Your task to perform on an android device: What's the price of the Galaxy phone on eBay? Image 0: 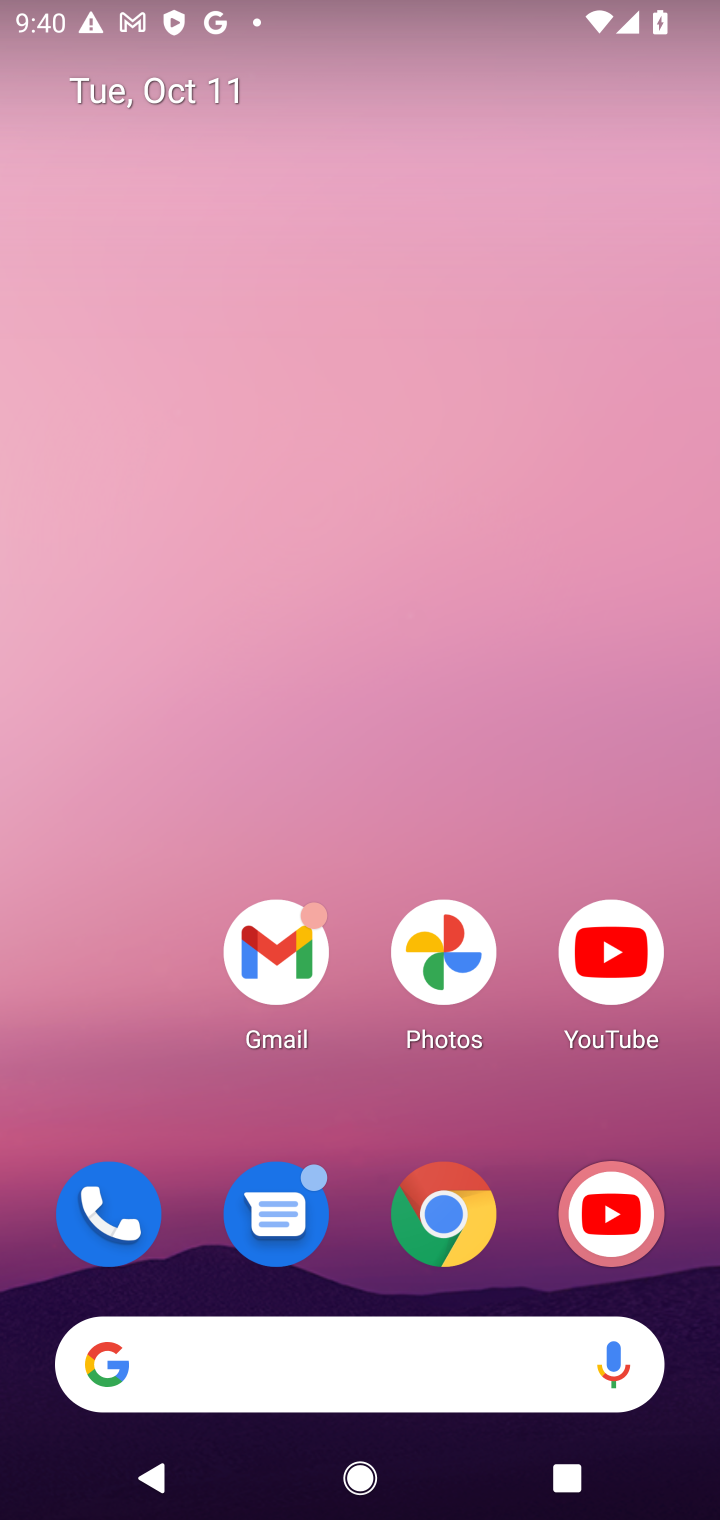
Step 0: drag from (375, 1114) to (477, 132)
Your task to perform on an android device: What's the price of the Galaxy phone on eBay? Image 1: 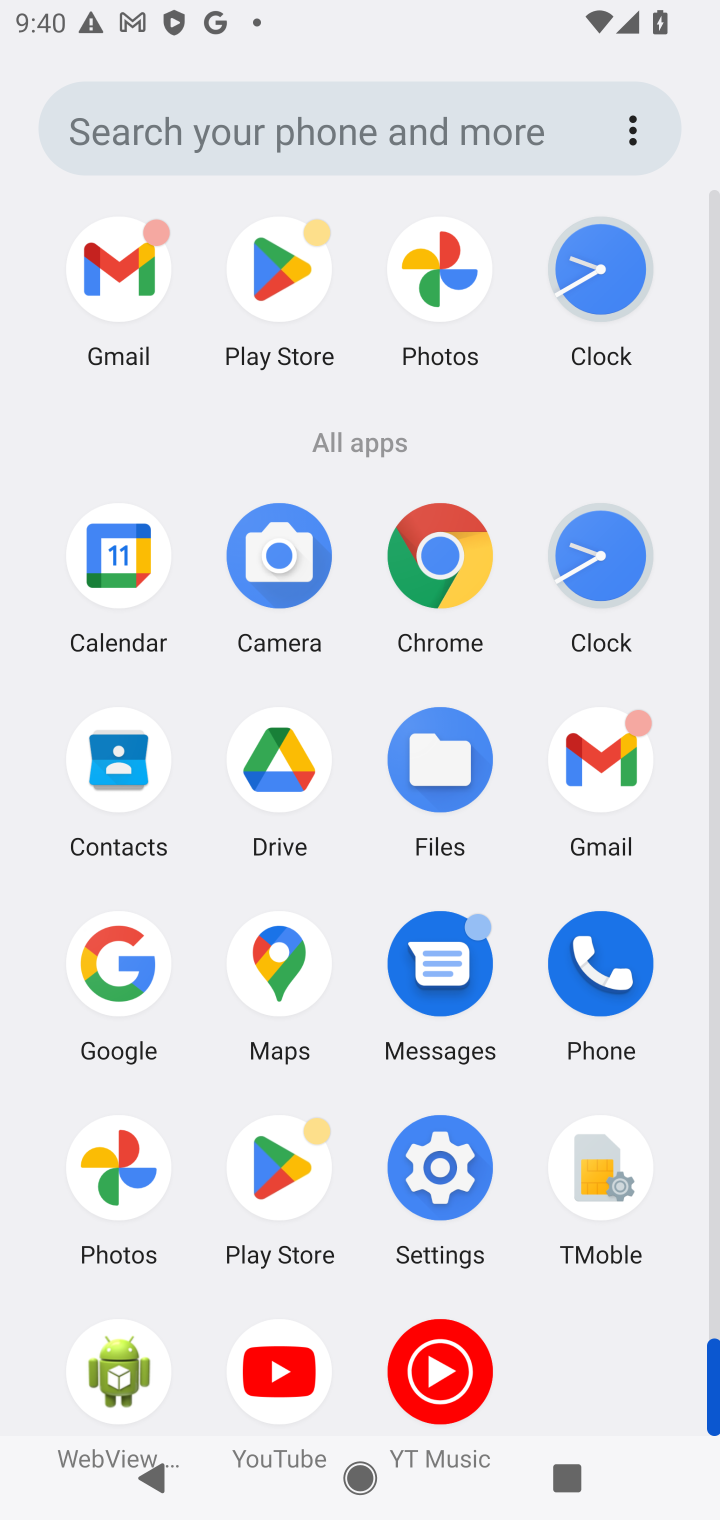
Step 1: click (440, 571)
Your task to perform on an android device: What's the price of the Galaxy phone on eBay? Image 2: 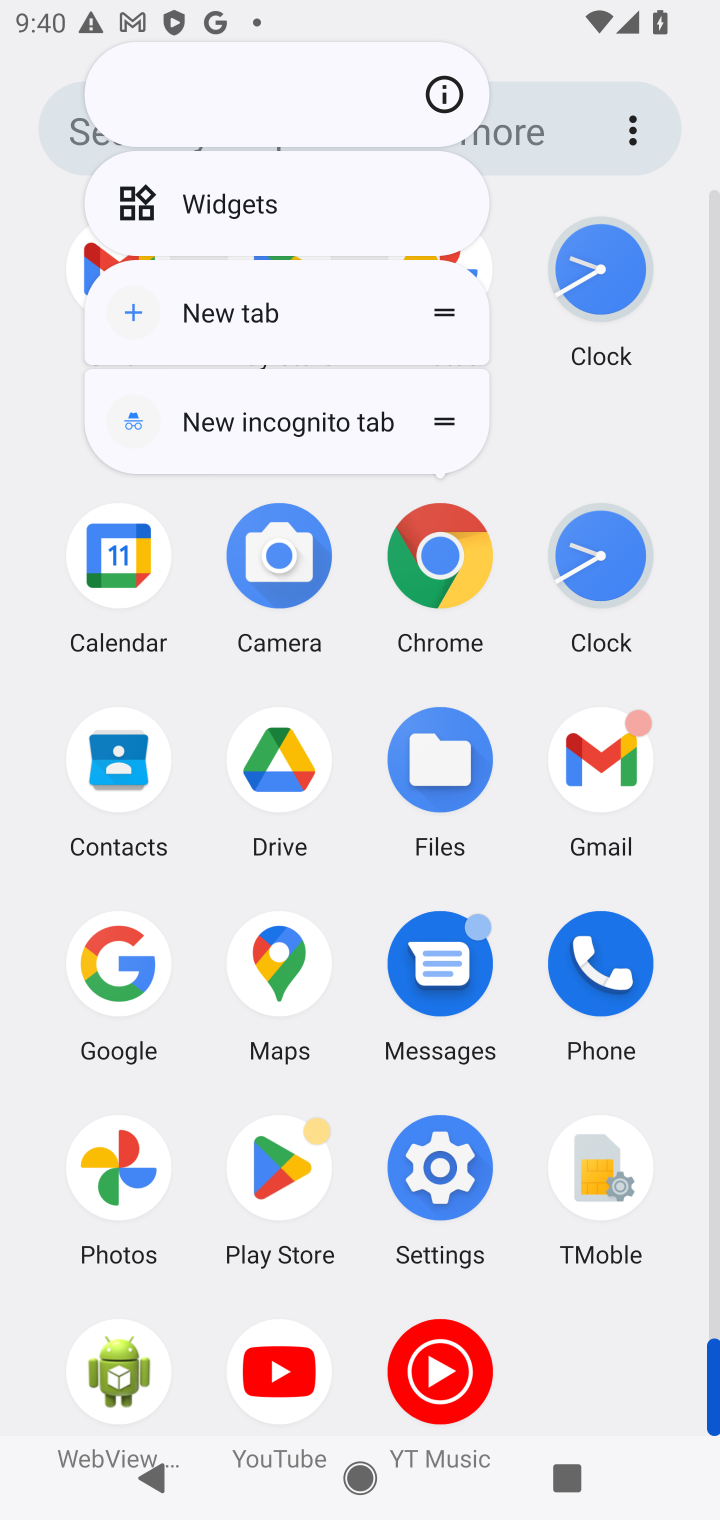
Step 2: click (446, 539)
Your task to perform on an android device: What's the price of the Galaxy phone on eBay? Image 3: 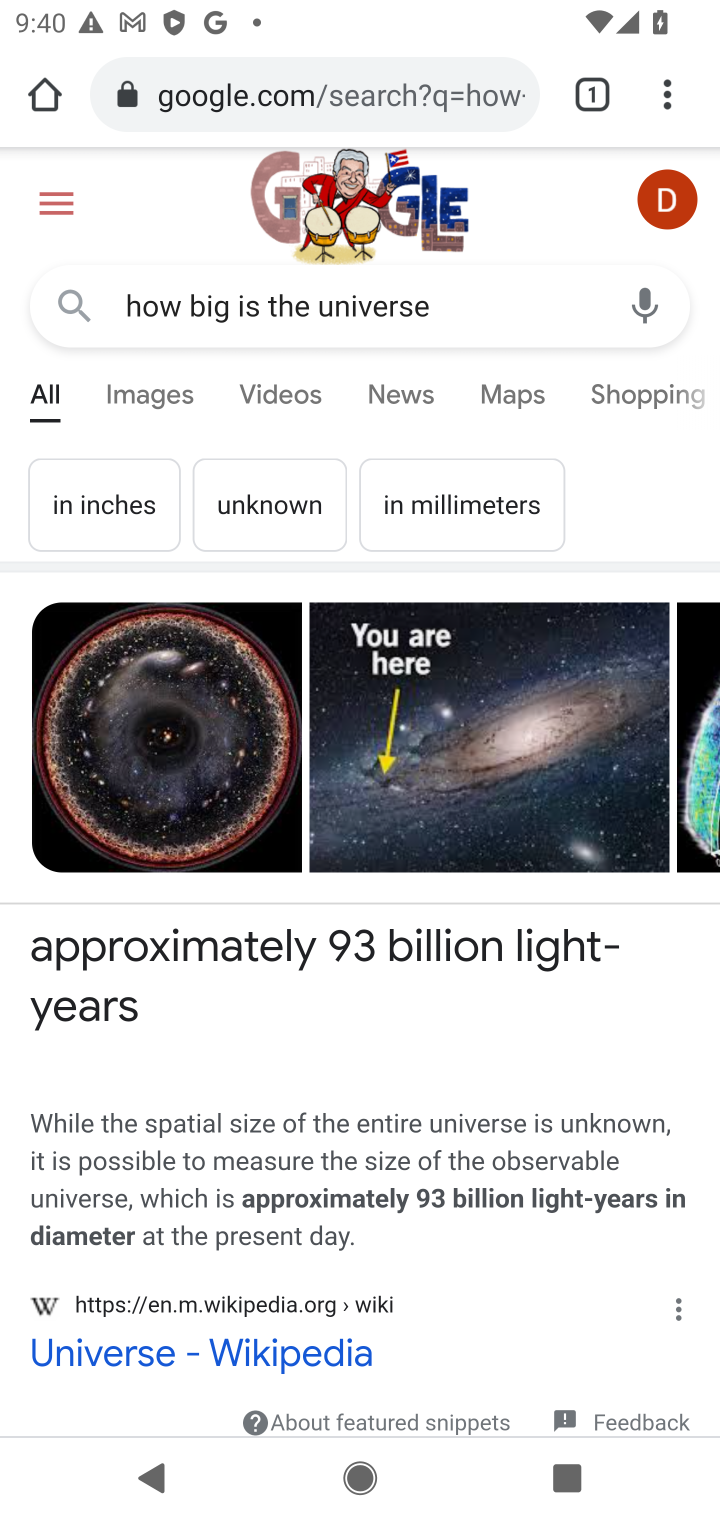
Step 3: click (421, 108)
Your task to perform on an android device: What's the price of the Galaxy phone on eBay? Image 4: 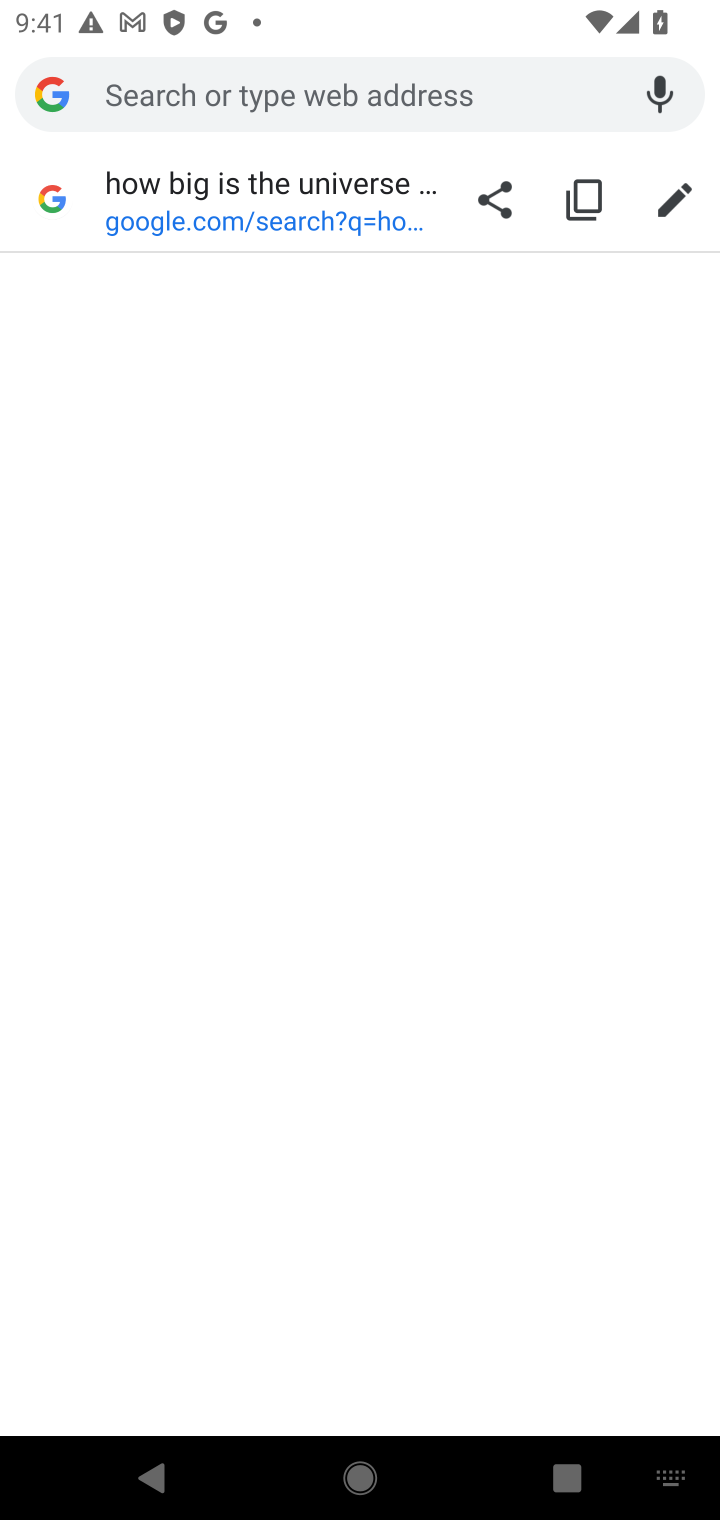
Step 4: type "What's the price of the Galaxy phone on eBay?"
Your task to perform on an android device: What's the price of the Galaxy phone on eBay? Image 5: 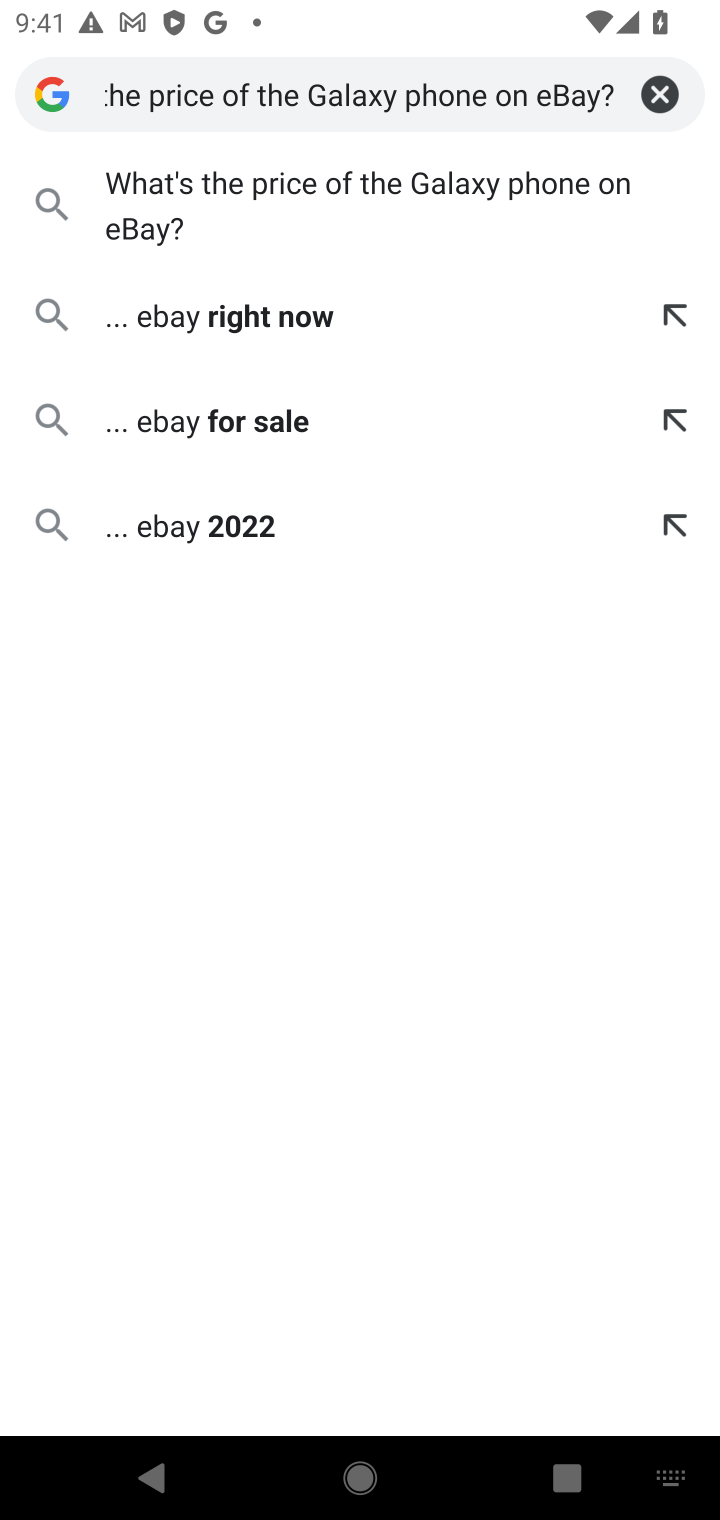
Step 5: press enter
Your task to perform on an android device: What's the price of the Galaxy phone on eBay? Image 6: 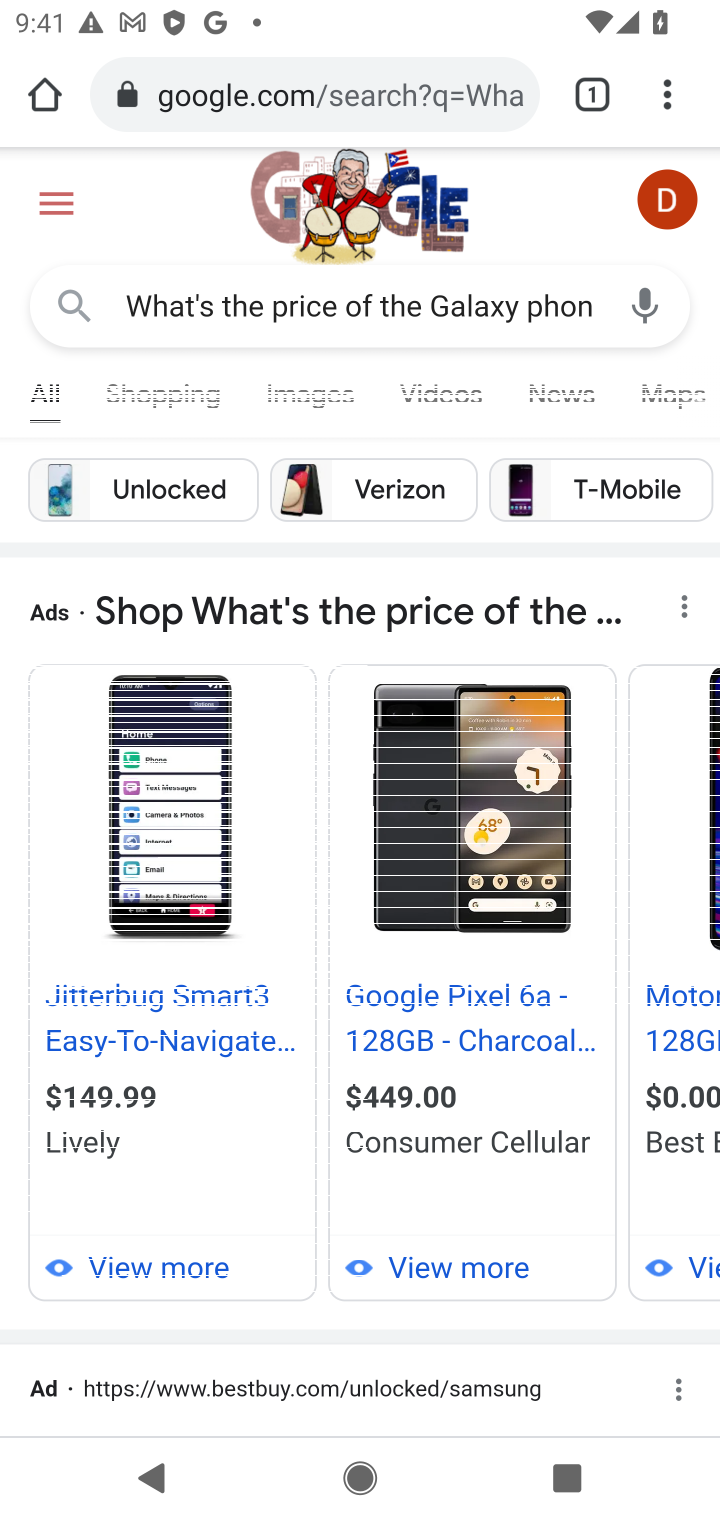
Step 6: drag from (434, 1321) to (407, 1057)
Your task to perform on an android device: What's the price of the Galaxy phone on eBay? Image 7: 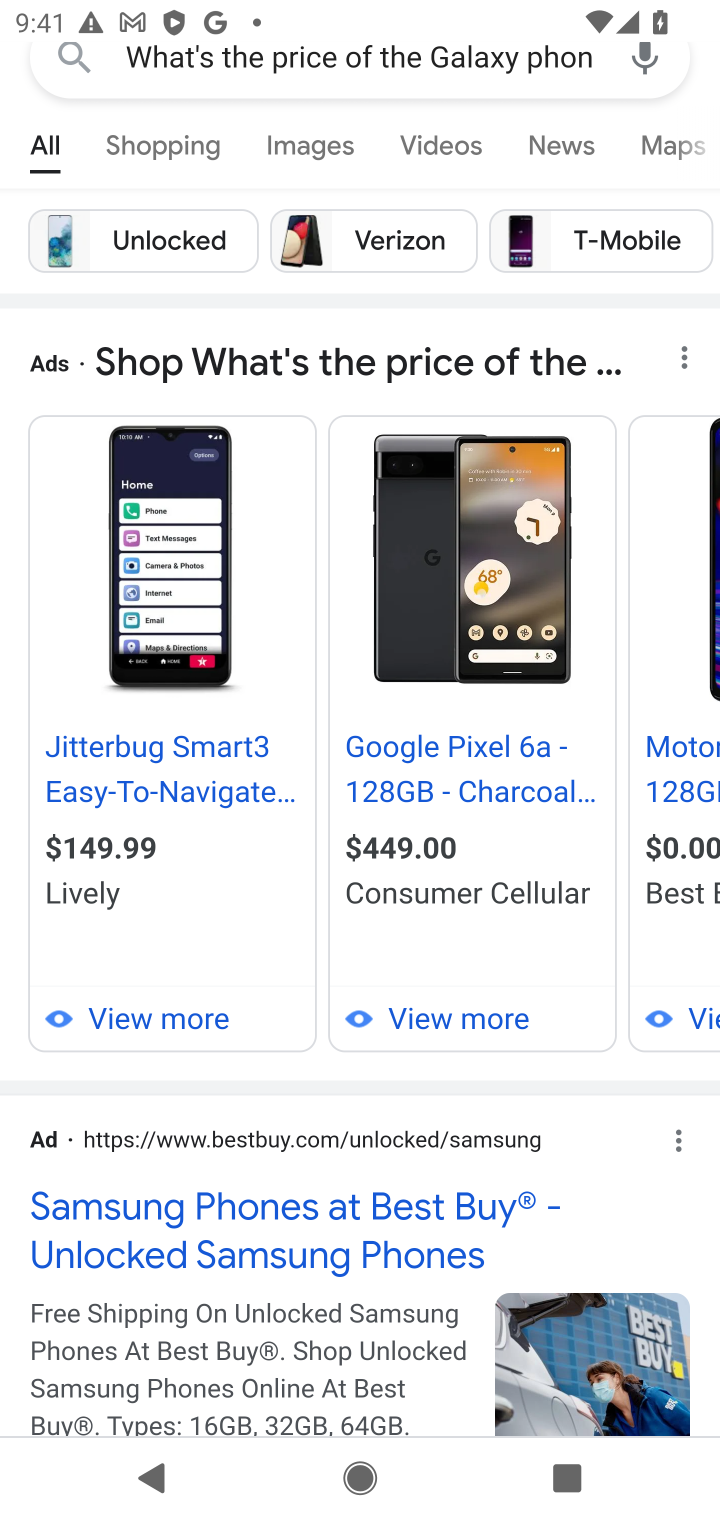
Step 7: click (589, 64)
Your task to perform on an android device: What's the price of the Galaxy phone on eBay? Image 8: 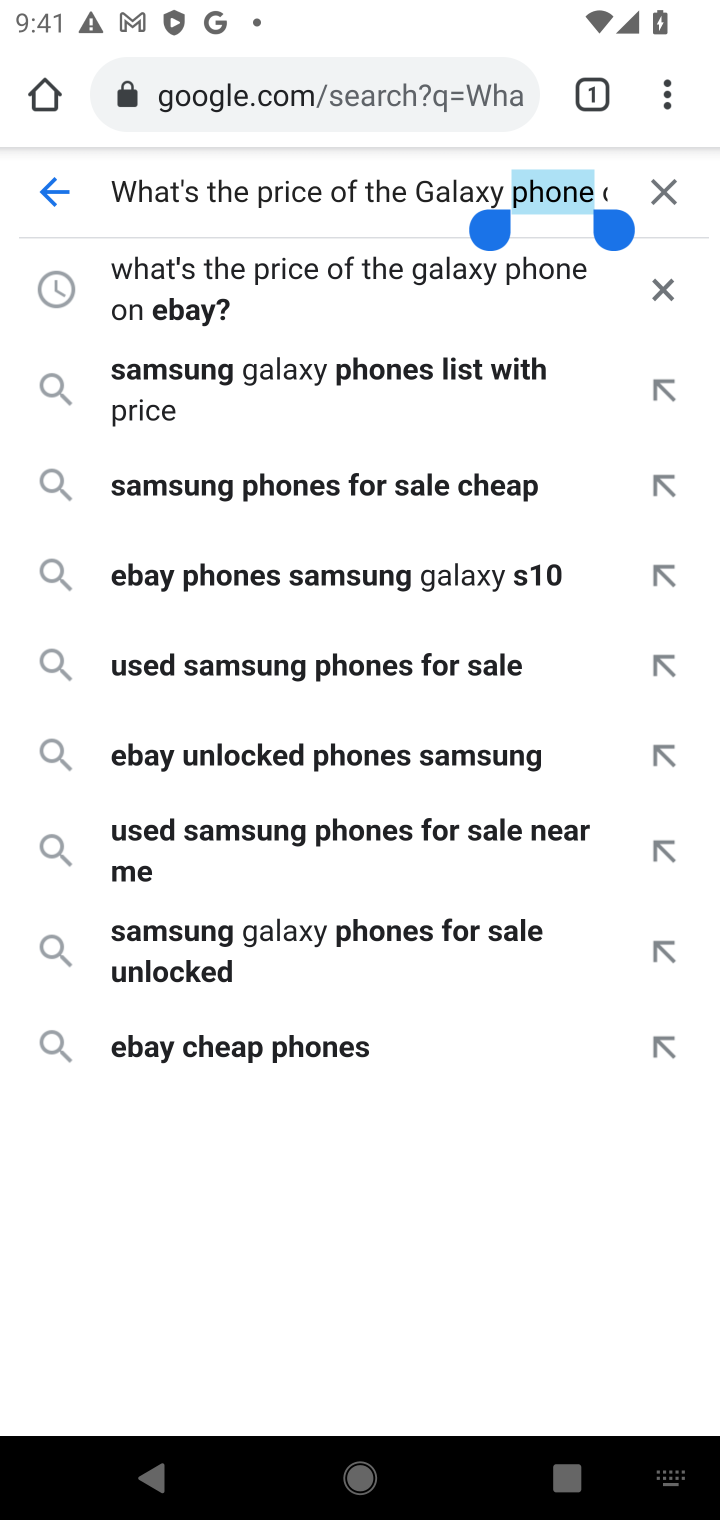
Step 8: click (608, 170)
Your task to perform on an android device: What's the price of the Galaxy phone on eBay? Image 9: 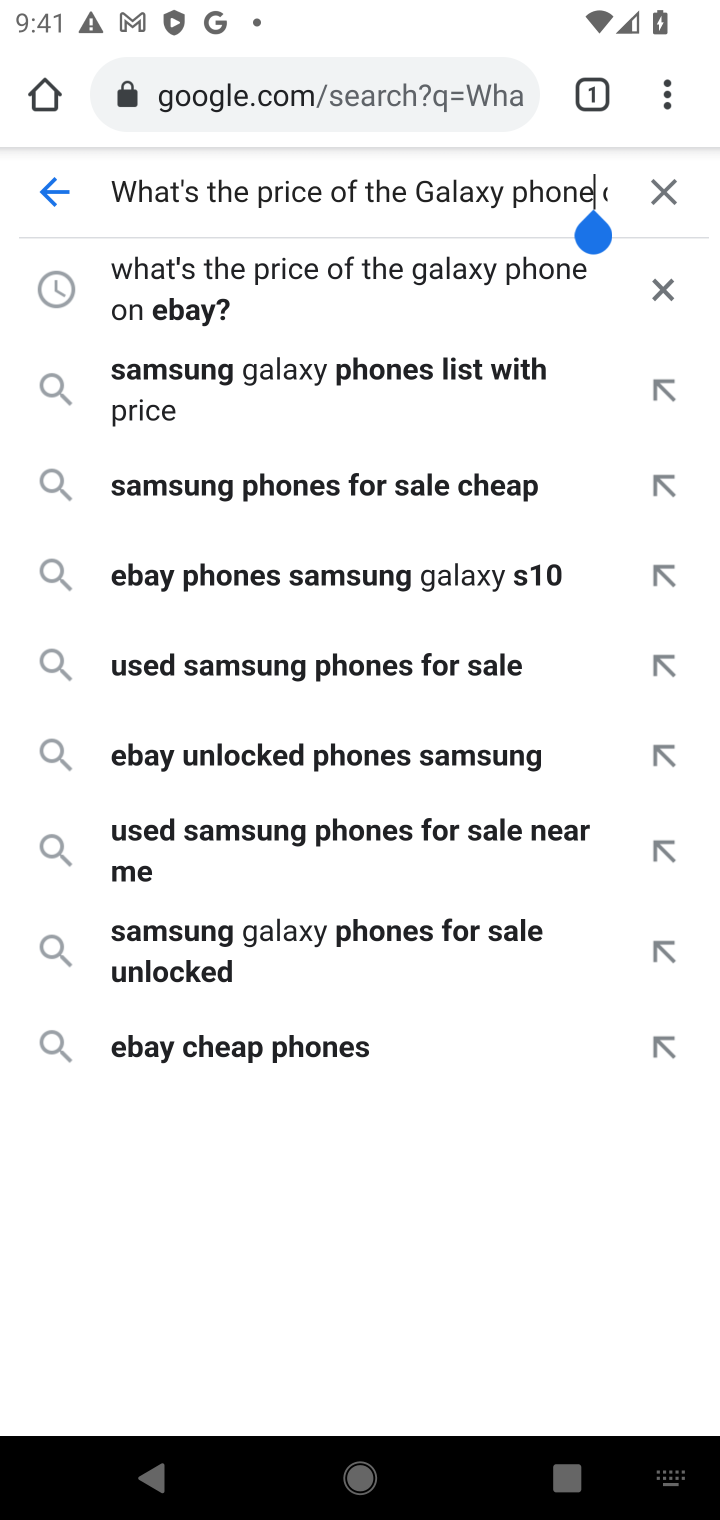
Step 9: drag from (598, 228) to (708, 244)
Your task to perform on an android device: What's the price of the Galaxy phone on eBay? Image 10: 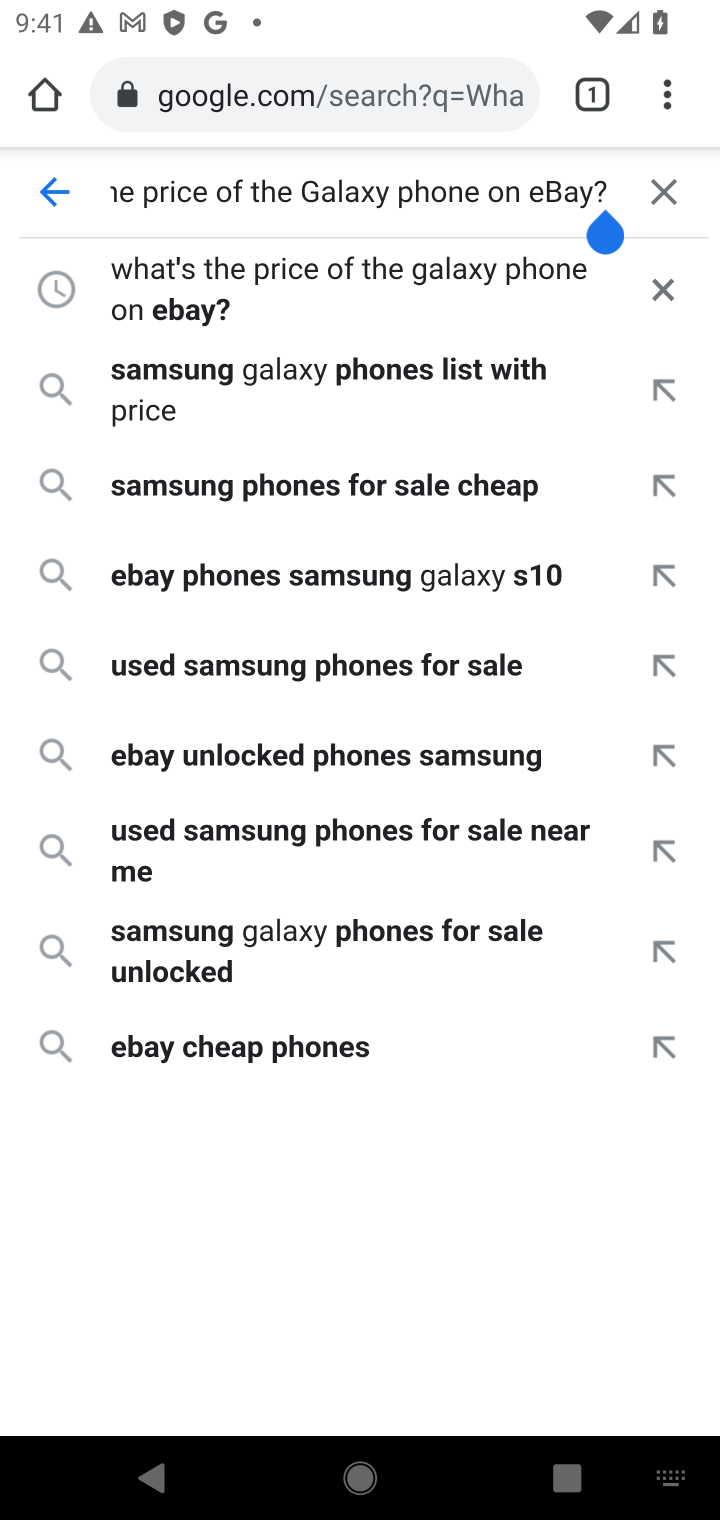
Step 10: press enter
Your task to perform on an android device: What's the price of the Galaxy phone on eBay? Image 11: 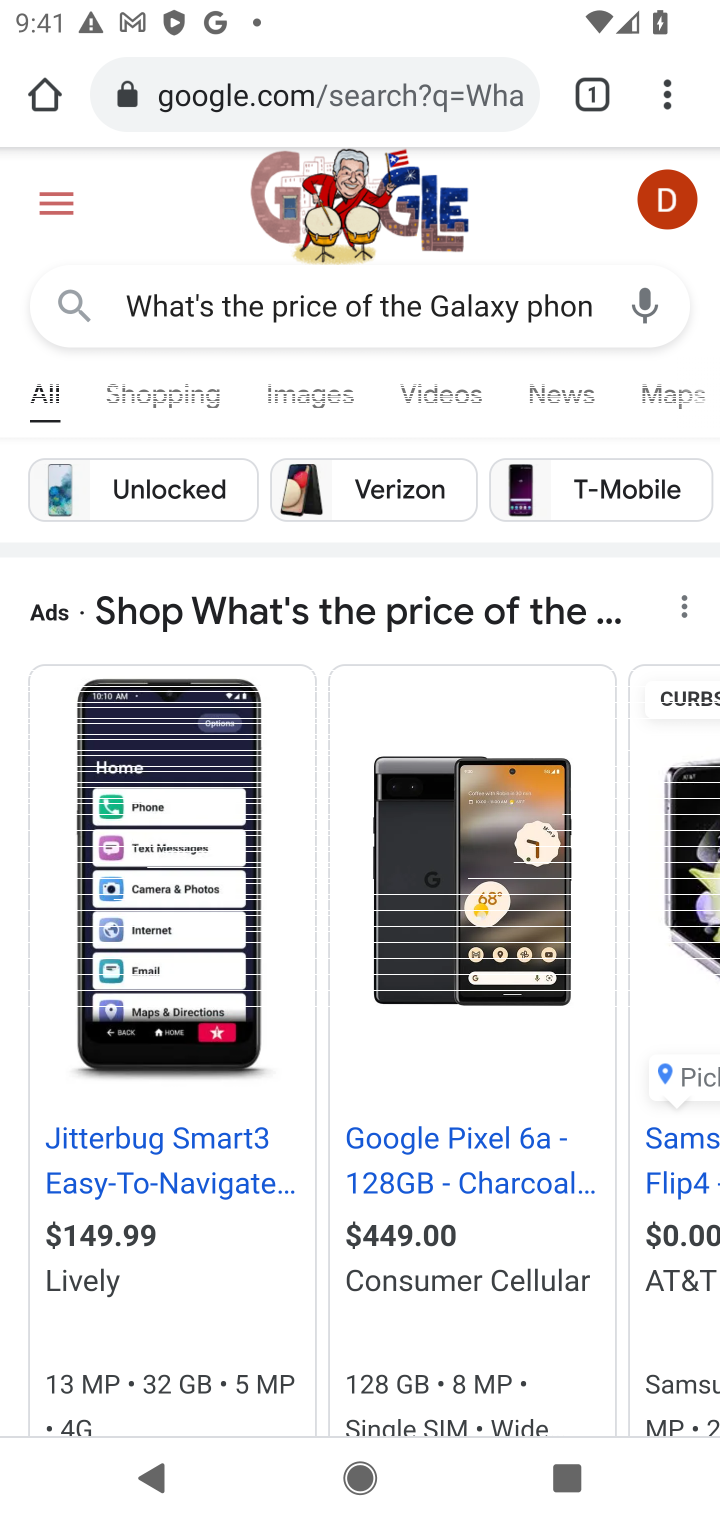
Step 11: drag from (355, 1201) to (411, 429)
Your task to perform on an android device: What's the price of the Galaxy phone on eBay? Image 12: 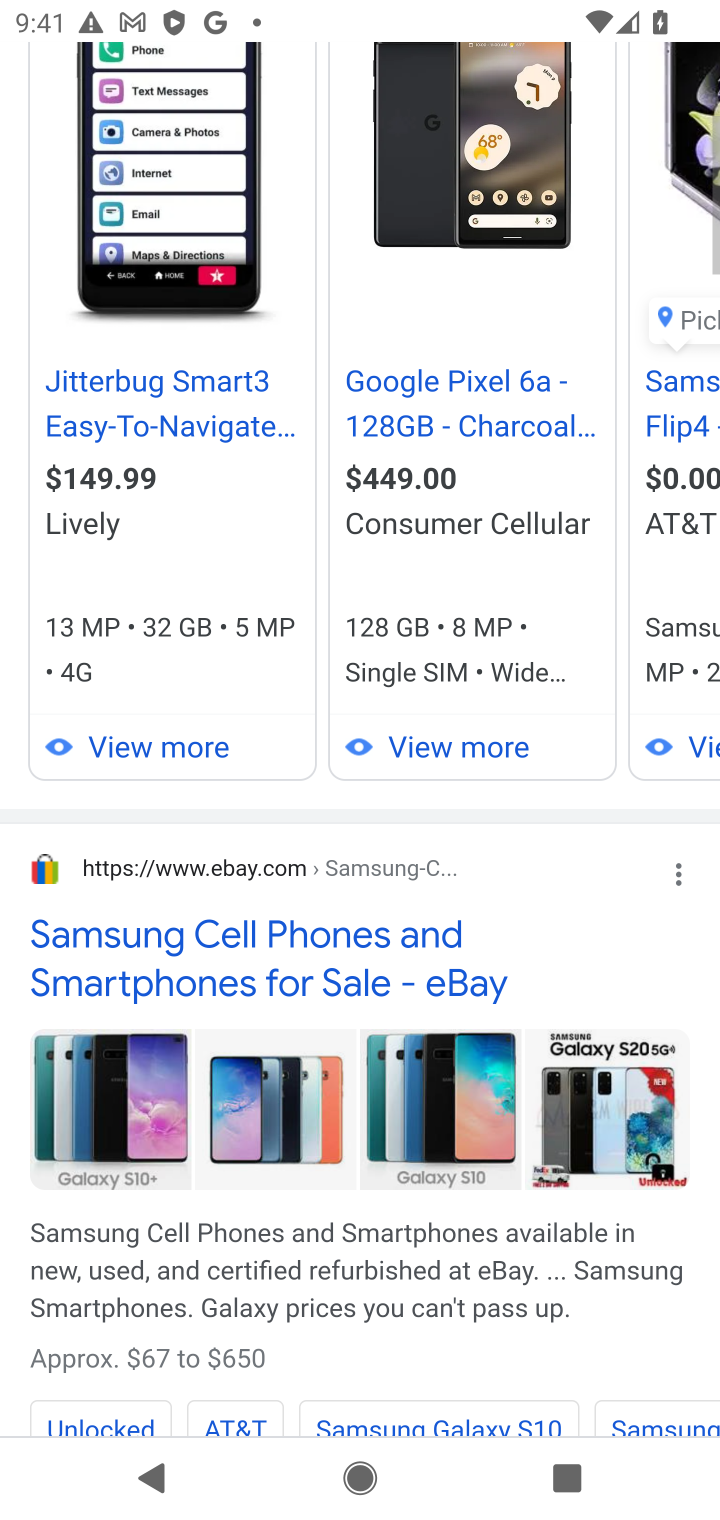
Step 12: drag from (442, 1371) to (467, 944)
Your task to perform on an android device: What's the price of the Galaxy phone on eBay? Image 13: 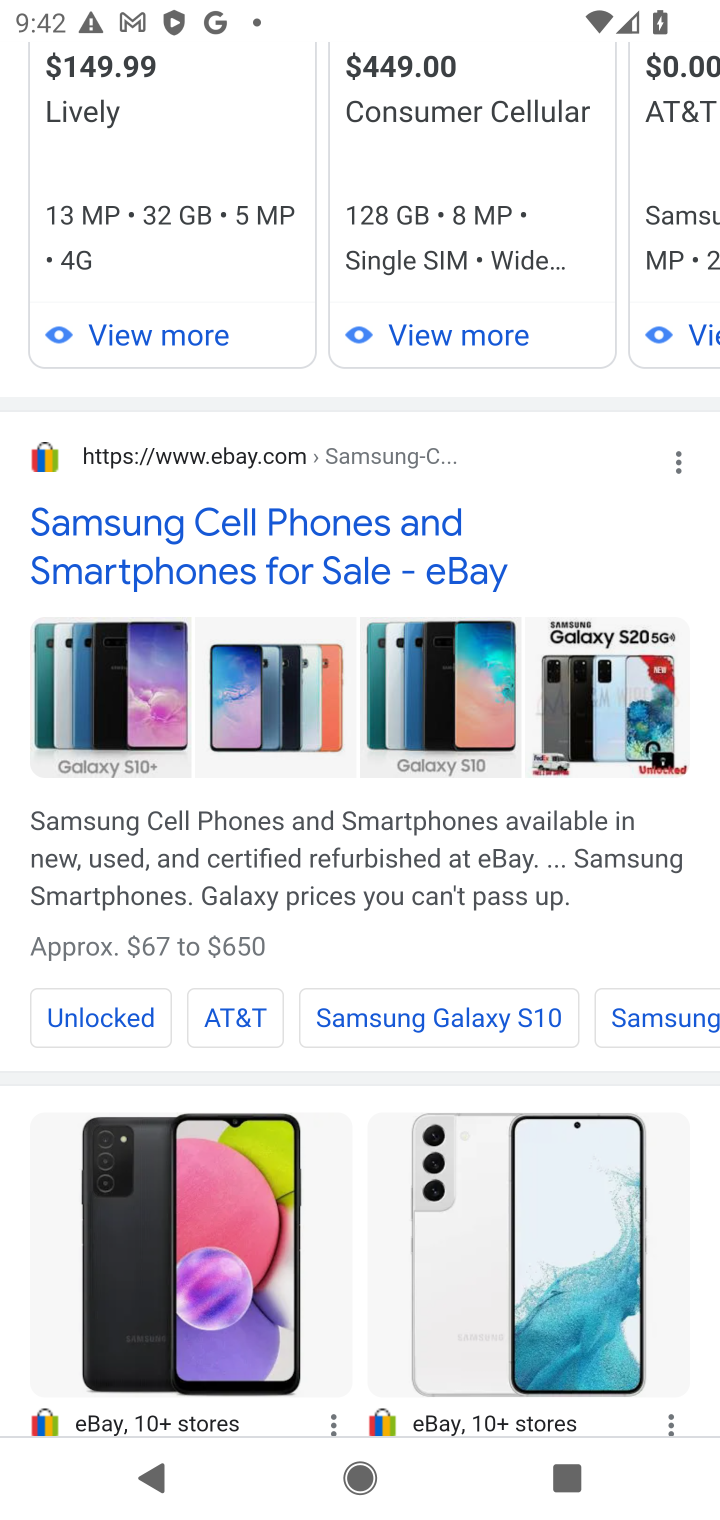
Step 13: click (261, 516)
Your task to perform on an android device: What's the price of the Galaxy phone on eBay? Image 14: 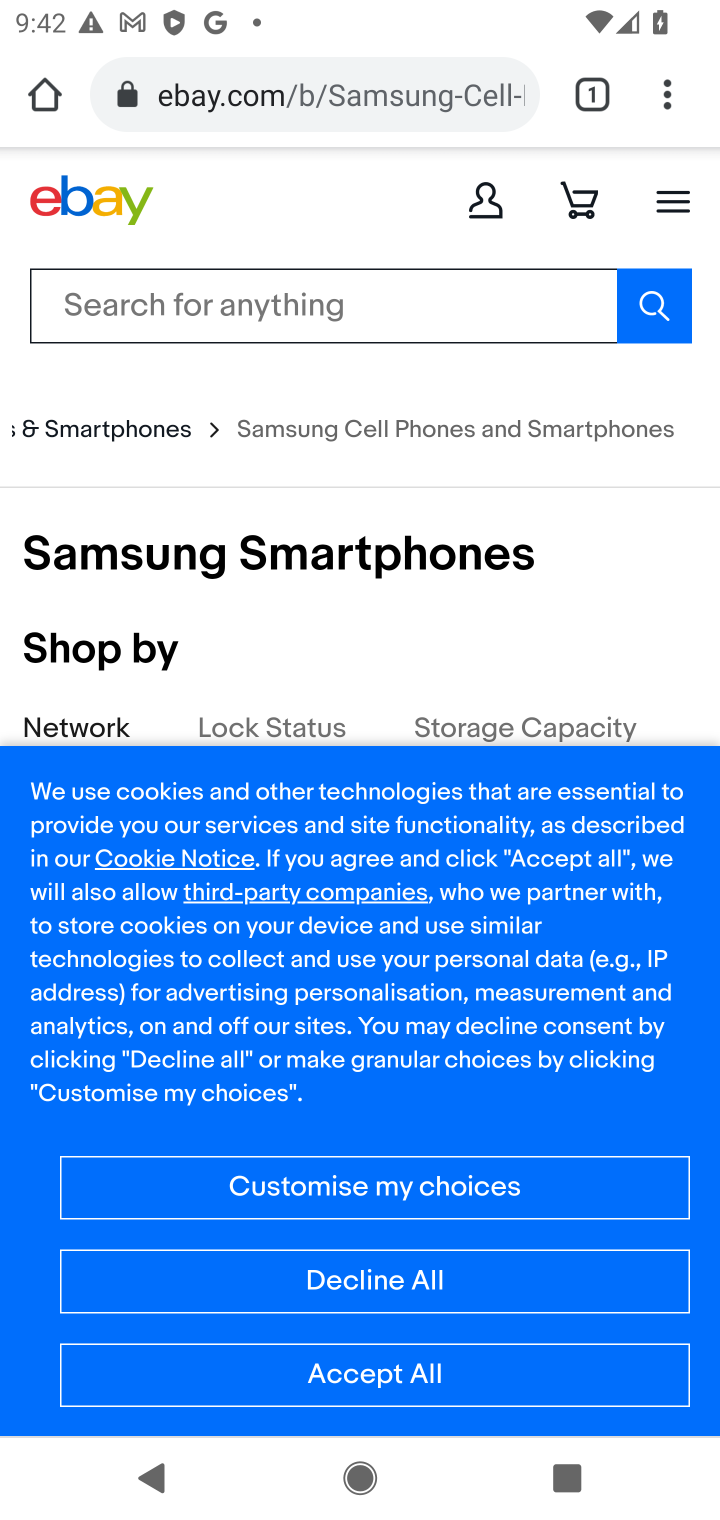
Step 14: task complete